Your task to perform on an android device: see creations saved in the google photos Image 0: 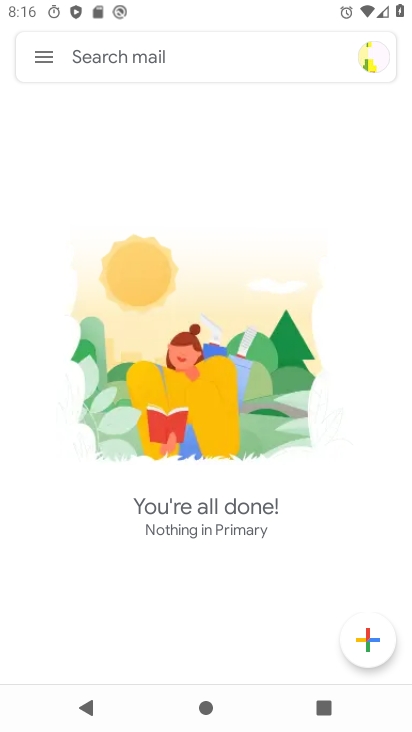
Step 0: press home button
Your task to perform on an android device: see creations saved in the google photos Image 1: 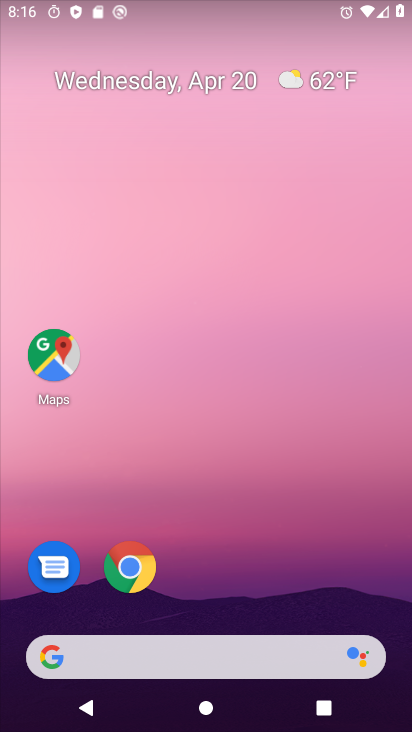
Step 1: drag from (407, 537) to (407, 67)
Your task to perform on an android device: see creations saved in the google photos Image 2: 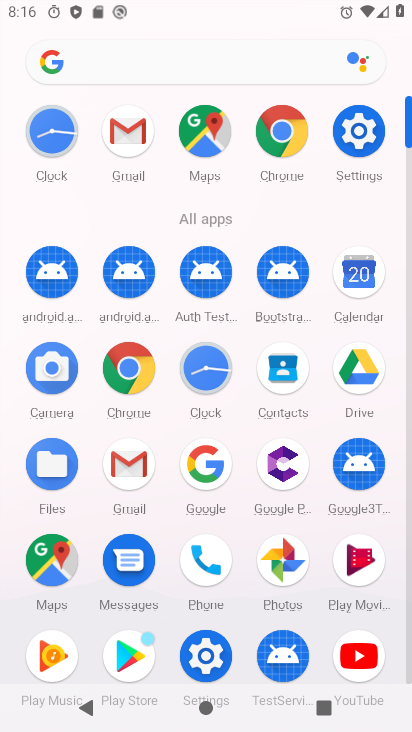
Step 2: drag from (300, 534) to (317, 136)
Your task to perform on an android device: see creations saved in the google photos Image 3: 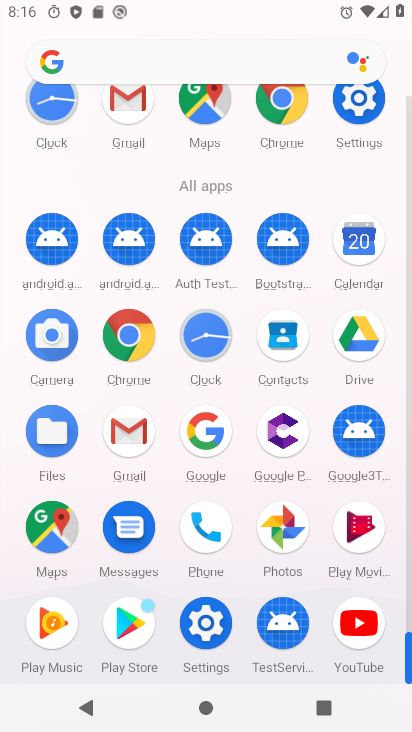
Step 3: click (281, 528)
Your task to perform on an android device: see creations saved in the google photos Image 4: 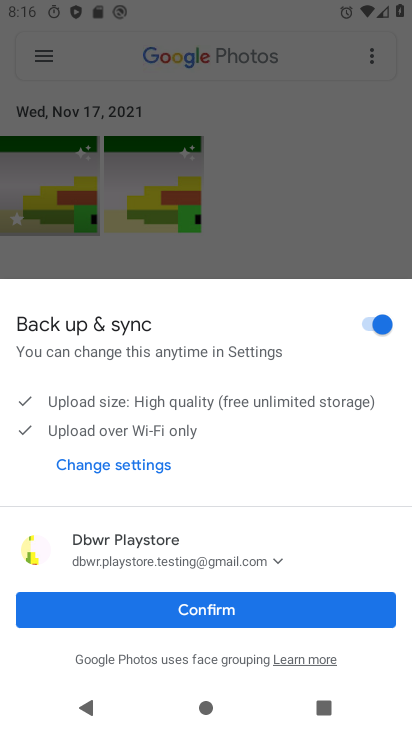
Step 4: click (235, 606)
Your task to perform on an android device: see creations saved in the google photos Image 5: 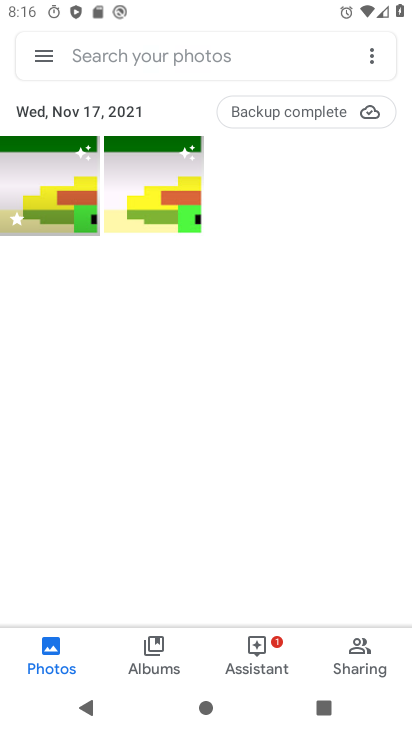
Step 5: click (135, 52)
Your task to perform on an android device: see creations saved in the google photos Image 6: 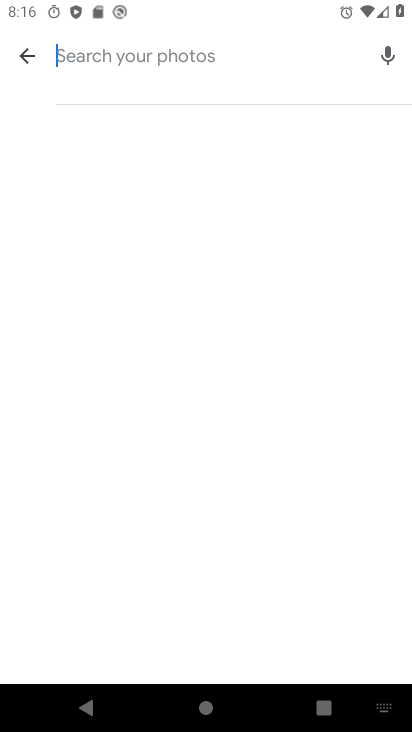
Step 6: click (27, 57)
Your task to perform on an android device: see creations saved in the google photos Image 7: 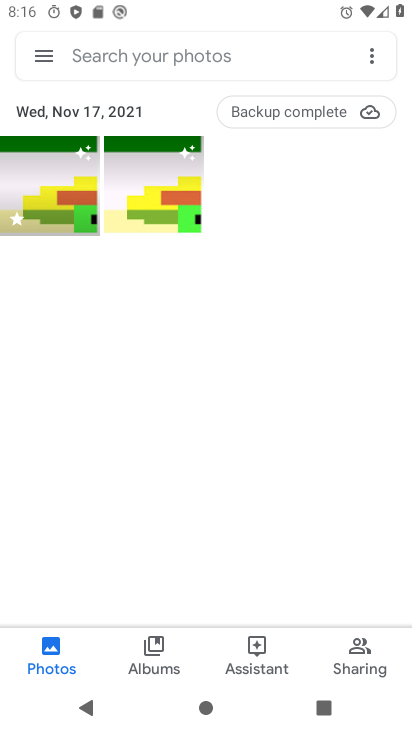
Step 7: click (183, 61)
Your task to perform on an android device: see creations saved in the google photos Image 8: 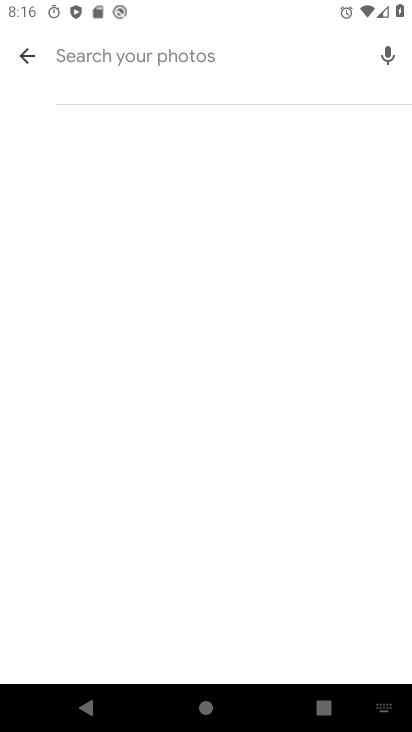
Step 8: click (184, 62)
Your task to perform on an android device: see creations saved in the google photos Image 9: 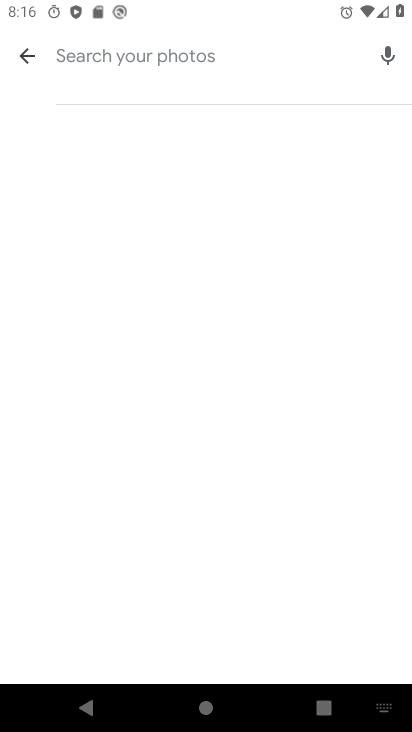
Step 9: click (29, 62)
Your task to perform on an android device: see creations saved in the google photos Image 10: 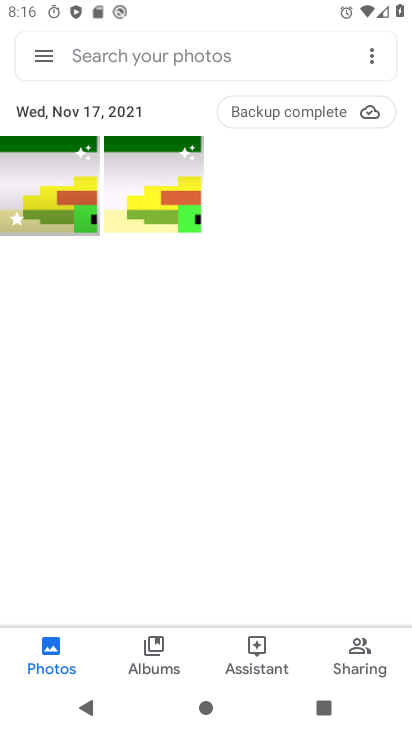
Step 10: click (248, 59)
Your task to perform on an android device: see creations saved in the google photos Image 11: 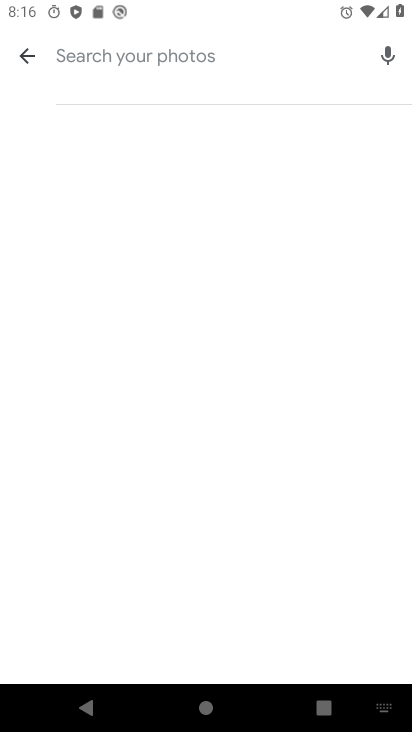
Step 11: drag from (183, 280) to (185, 112)
Your task to perform on an android device: see creations saved in the google photos Image 12: 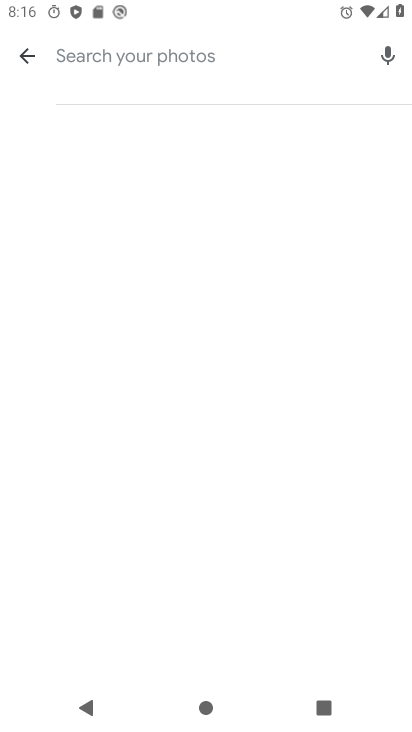
Step 12: drag from (191, 163) to (205, 579)
Your task to perform on an android device: see creations saved in the google photos Image 13: 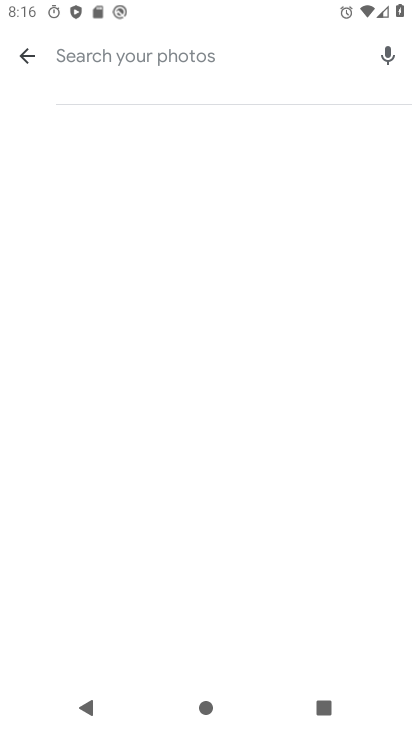
Step 13: click (17, 55)
Your task to perform on an android device: see creations saved in the google photos Image 14: 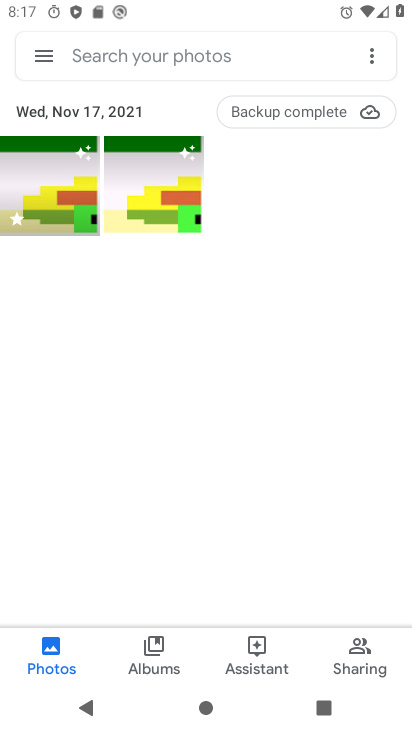
Step 14: click (170, 58)
Your task to perform on an android device: see creations saved in the google photos Image 15: 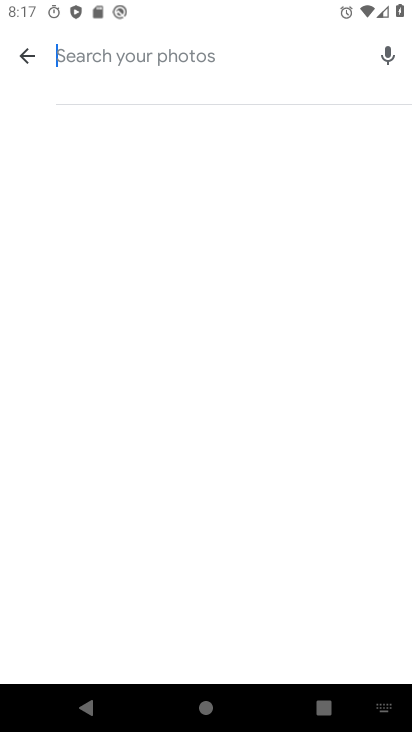
Step 15: click (24, 56)
Your task to perform on an android device: see creations saved in the google photos Image 16: 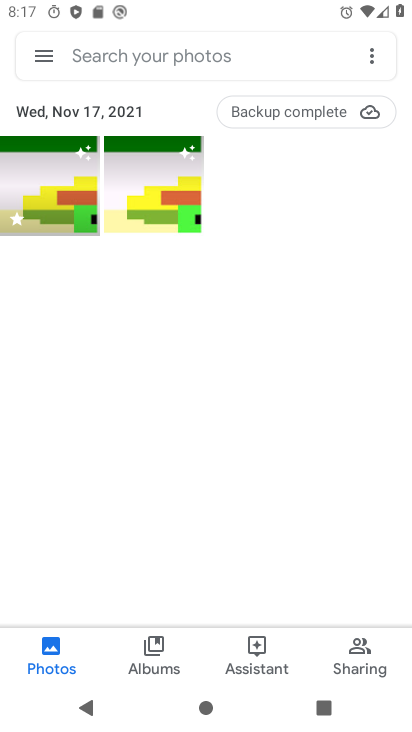
Step 16: click (374, 56)
Your task to perform on an android device: see creations saved in the google photos Image 17: 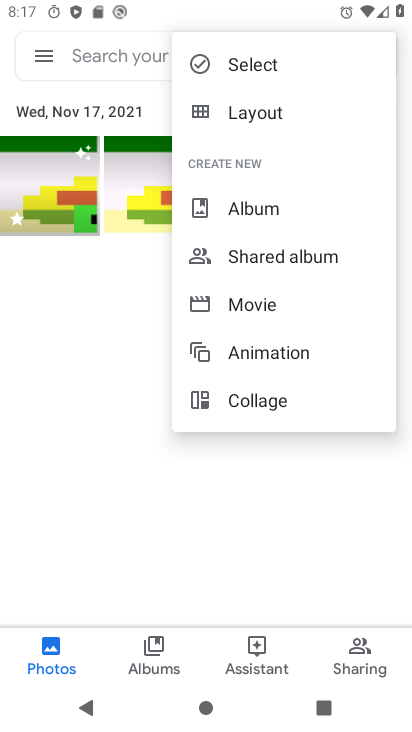
Step 17: drag from (299, 397) to (292, 147)
Your task to perform on an android device: see creations saved in the google photos Image 18: 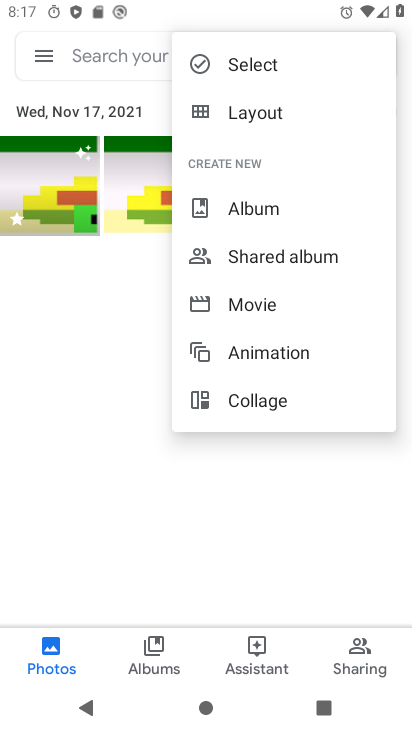
Step 18: click (129, 275)
Your task to perform on an android device: see creations saved in the google photos Image 19: 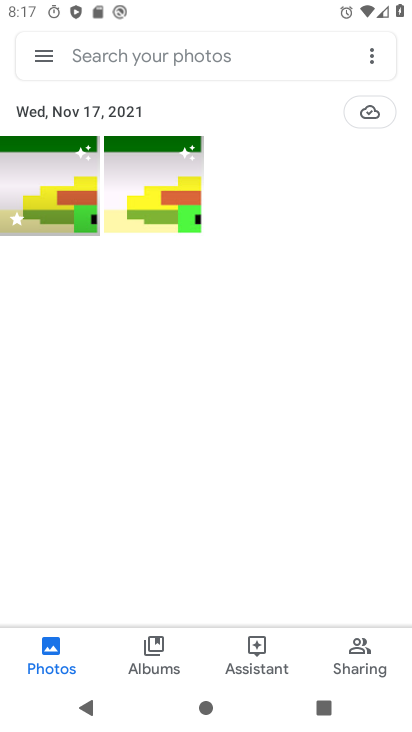
Step 19: click (138, 58)
Your task to perform on an android device: see creations saved in the google photos Image 20: 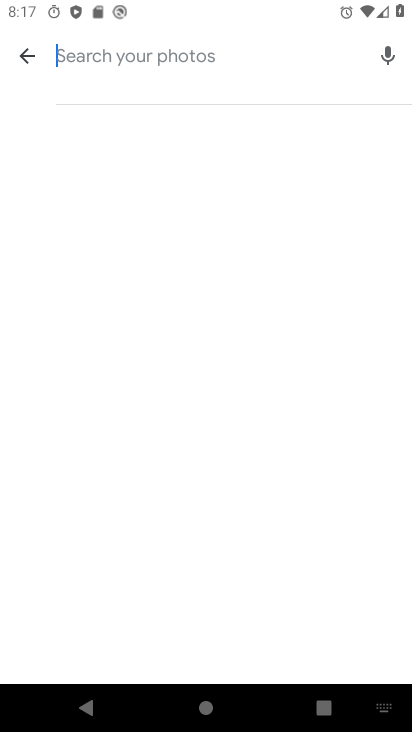
Step 20: task complete